Your task to perform on an android device: Search for seafood restaurants on Google Maps Image 0: 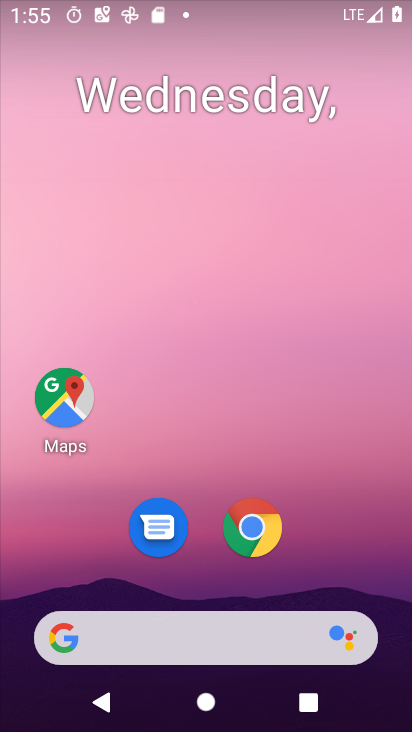
Step 0: drag from (246, 604) to (255, 60)
Your task to perform on an android device: Search for seafood restaurants on Google Maps Image 1: 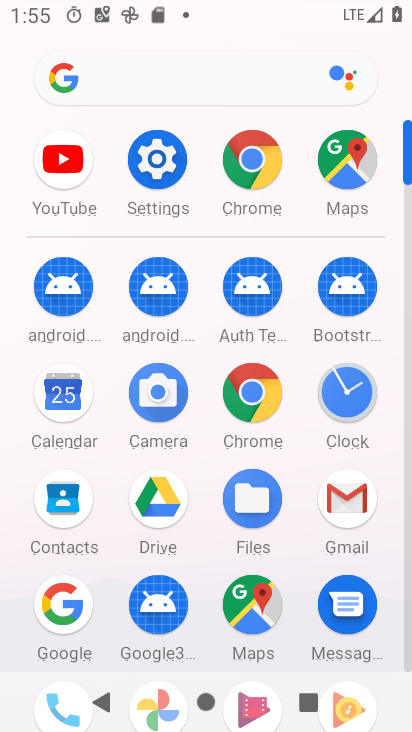
Step 1: click (251, 615)
Your task to perform on an android device: Search for seafood restaurants on Google Maps Image 2: 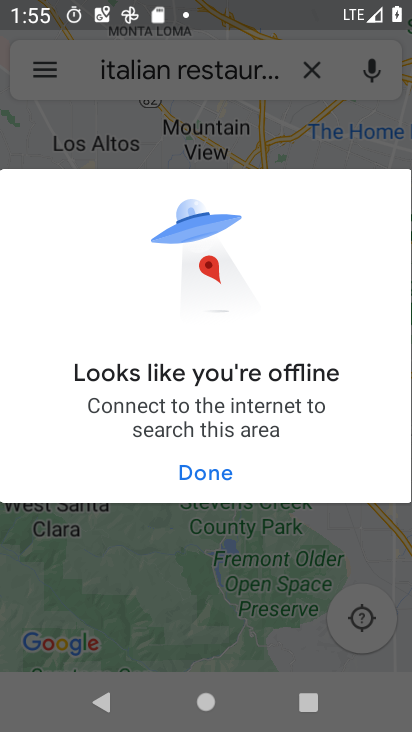
Step 2: press back button
Your task to perform on an android device: Search for seafood restaurants on Google Maps Image 3: 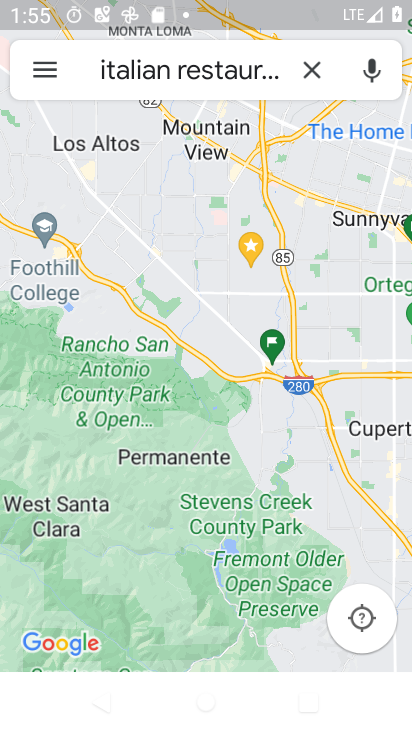
Step 3: click (315, 73)
Your task to perform on an android device: Search for seafood restaurants on Google Maps Image 4: 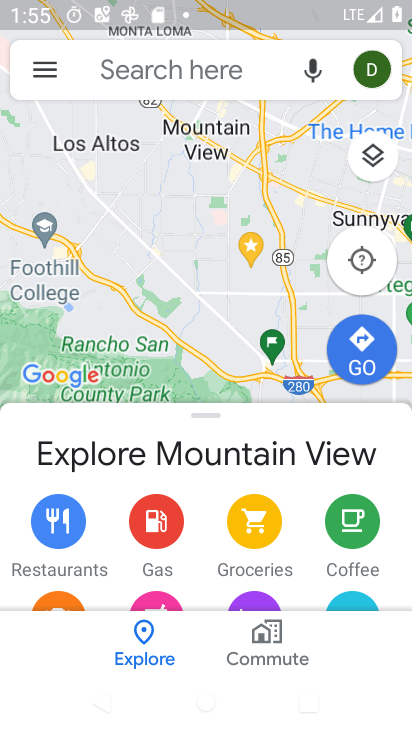
Step 4: click (225, 49)
Your task to perform on an android device: Search for seafood restaurants on Google Maps Image 5: 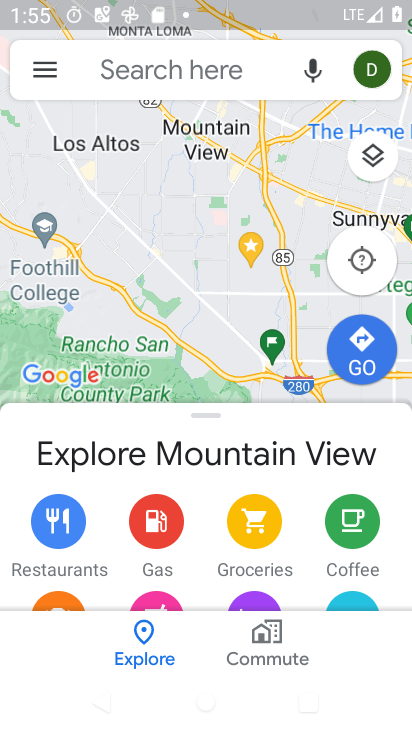
Step 5: click (225, 49)
Your task to perform on an android device: Search for seafood restaurants on Google Maps Image 6: 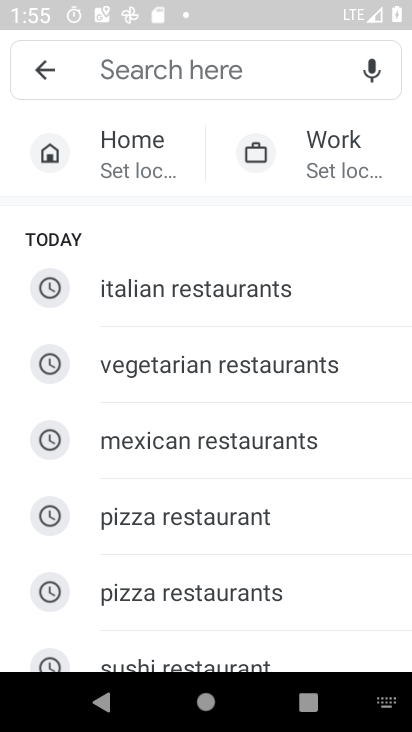
Step 6: drag from (322, 616) to (318, 243)
Your task to perform on an android device: Search for seafood restaurants on Google Maps Image 7: 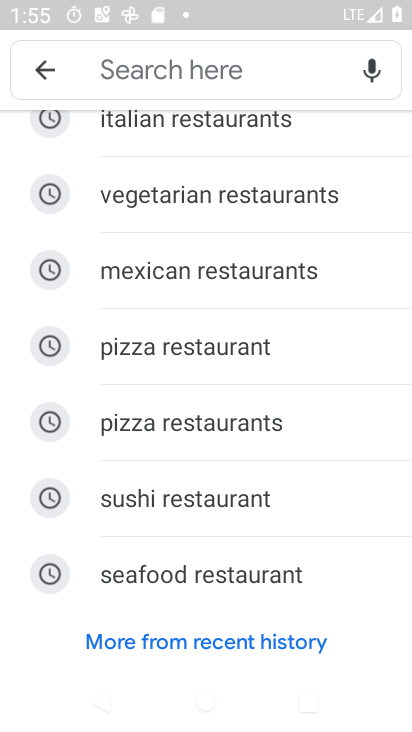
Step 7: click (289, 568)
Your task to perform on an android device: Search for seafood restaurants on Google Maps Image 8: 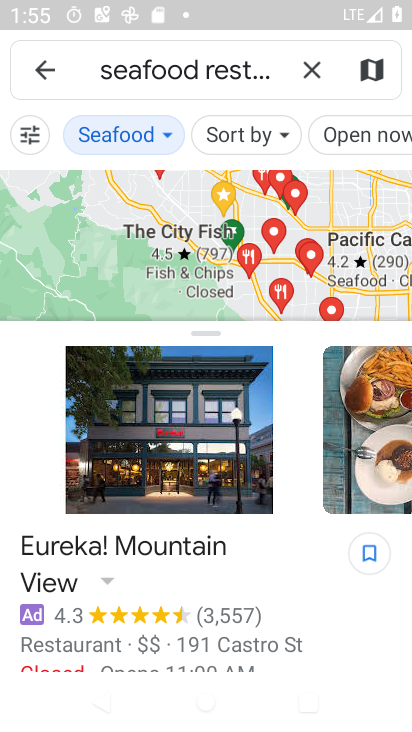
Step 8: task complete